Your task to perform on an android device: turn pop-ups off in chrome Image 0: 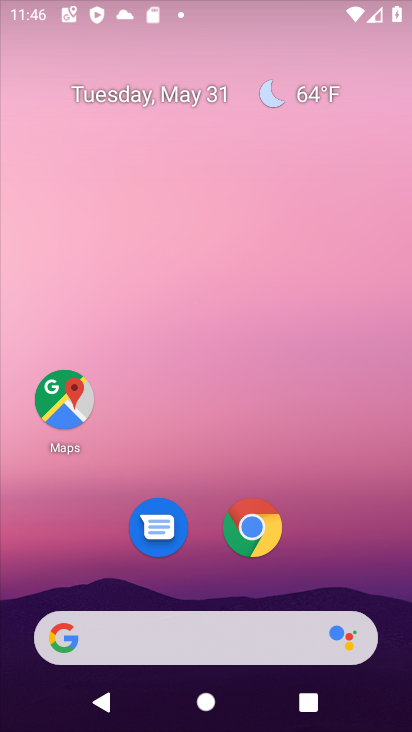
Step 0: drag from (250, 708) to (152, 26)
Your task to perform on an android device: turn pop-ups off in chrome Image 1: 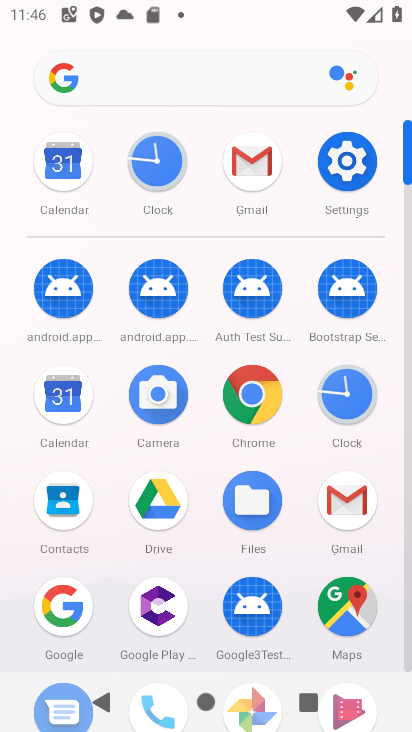
Step 1: click (247, 396)
Your task to perform on an android device: turn pop-ups off in chrome Image 2: 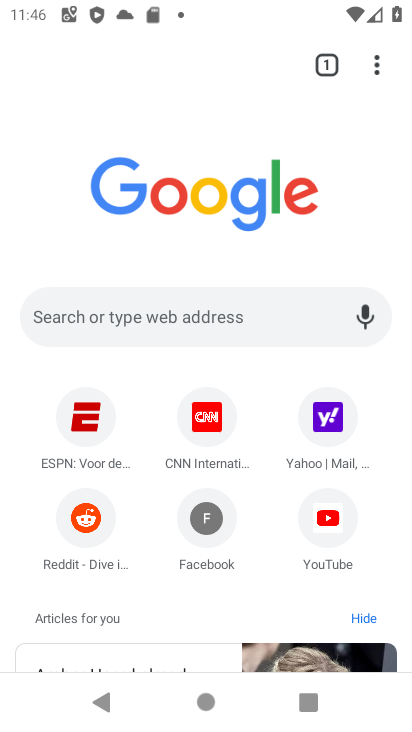
Step 2: click (372, 68)
Your task to perform on an android device: turn pop-ups off in chrome Image 3: 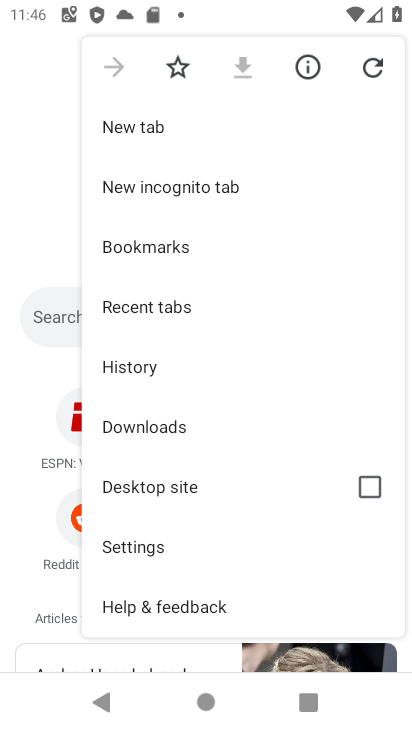
Step 3: click (167, 548)
Your task to perform on an android device: turn pop-ups off in chrome Image 4: 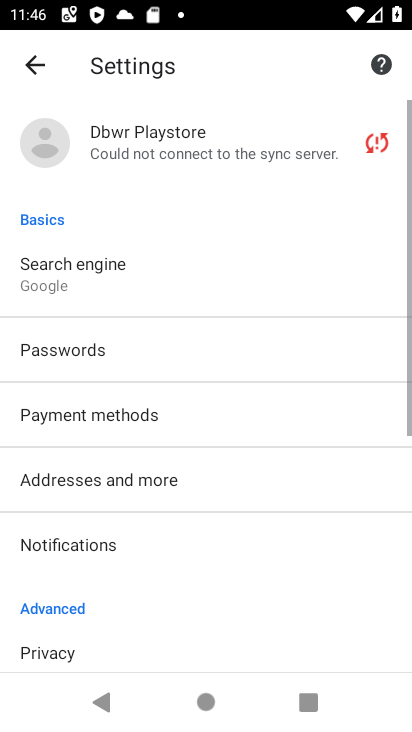
Step 4: drag from (211, 593) to (234, 14)
Your task to perform on an android device: turn pop-ups off in chrome Image 5: 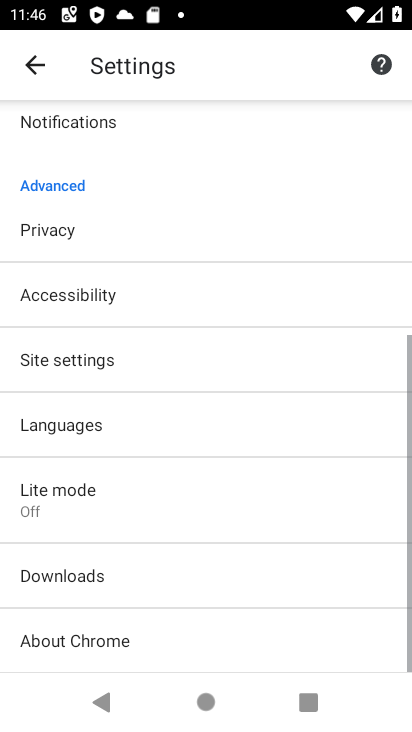
Step 5: click (151, 351)
Your task to perform on an android device: turn pop-ups off in chrome Image 6: 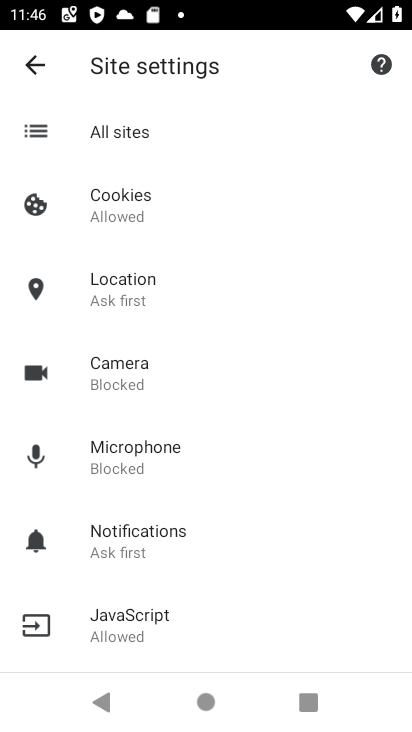
Step 6: drag from (277, 576) to (297, 49)
Your task to perform on an android device: turn pop-ups off in chrome Image 7: 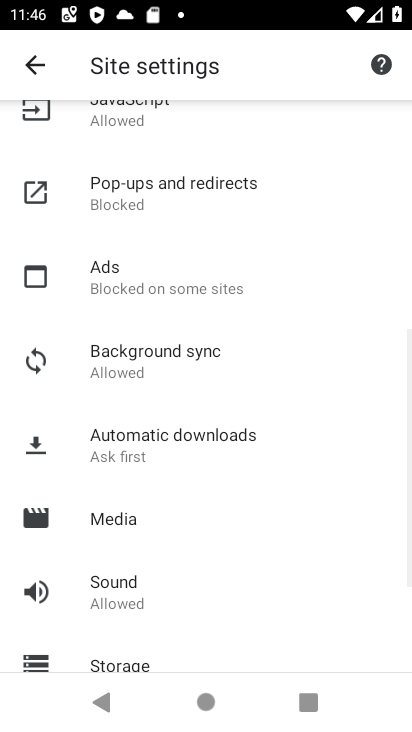
Step 7: click (313, 169)
Your task to perform on an android device: turn pop-ups off in chrome Image 8: 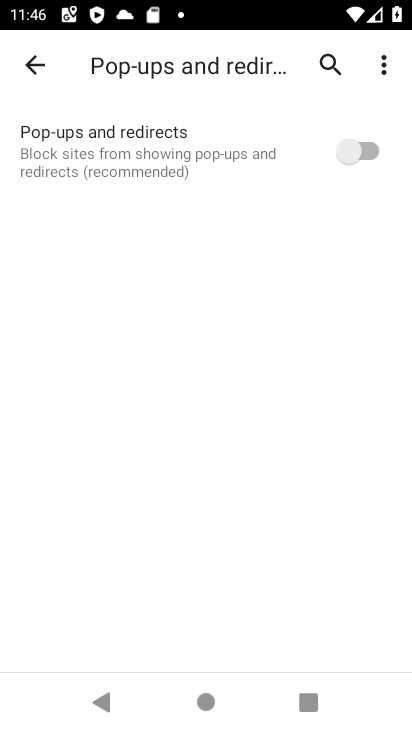
Step 8: task complete